Your task to perform on an android device: turn on javascript in the chrome app Image 0: 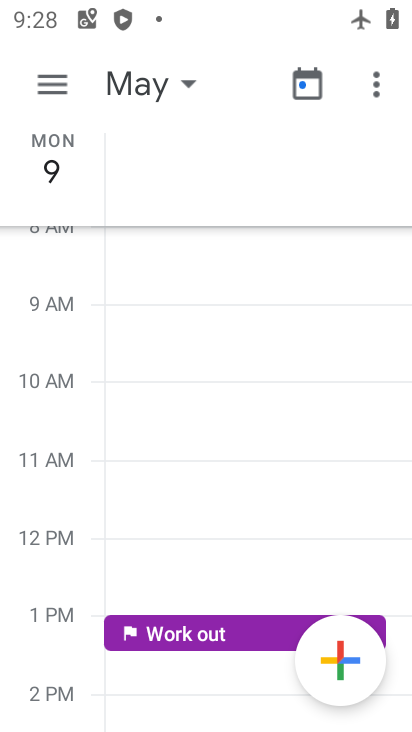
Step 0: press home button
Your task to perform on an android device: turn on javascript in the chrome app Image 1: 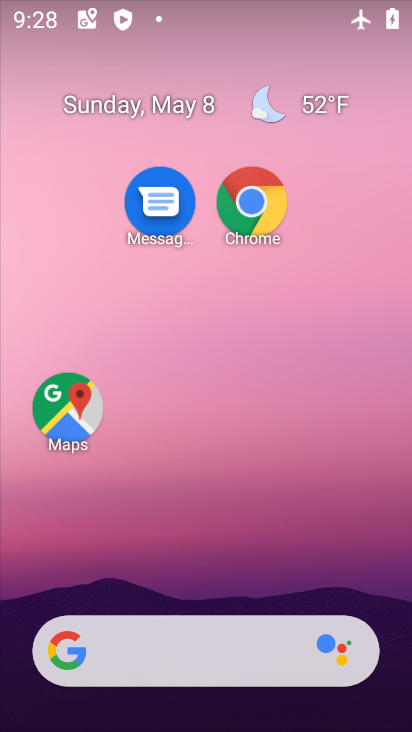
Step 1: click (260, 225)
Your task to perform on an android device: turn on javascript in the chrome app Image 2: 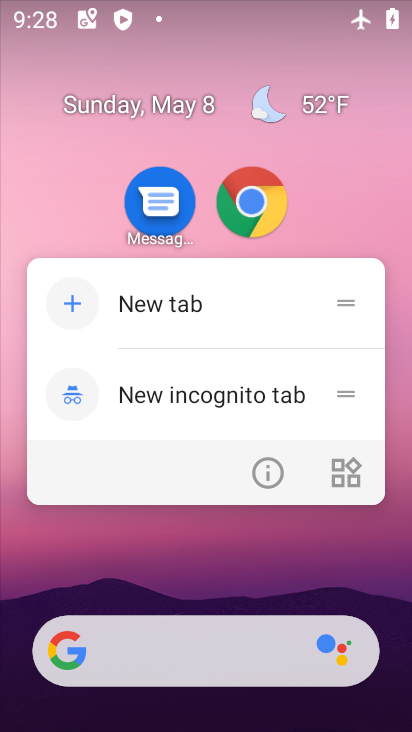
Step 2: click (255, 203)
Your task to perform on an android device: turn on javascript in the chrome app Image 3: 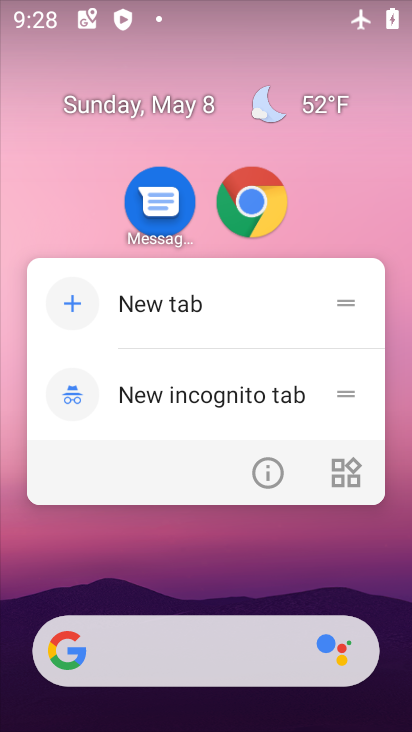
Step 3: click (260, 193)
Your task to perform on an android device: turn on javascript in the chrome app Image 4: 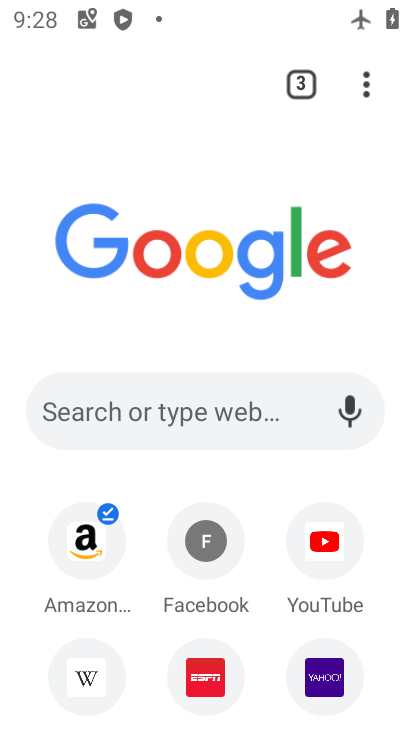
Step 4: click (371, 90)
Your task to perform on an android device: turn on javascript in the chrome app Image 5: 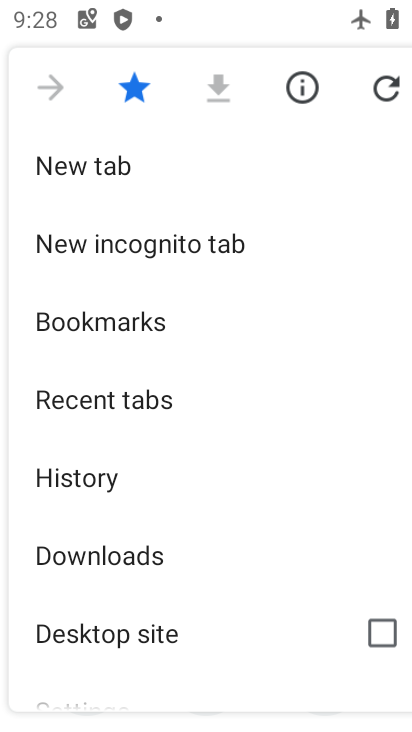
Step 5: drag from (198, 558) to (167, 283)
Your task to perform on an android device: turn on javascript in the chrome app Image 6: 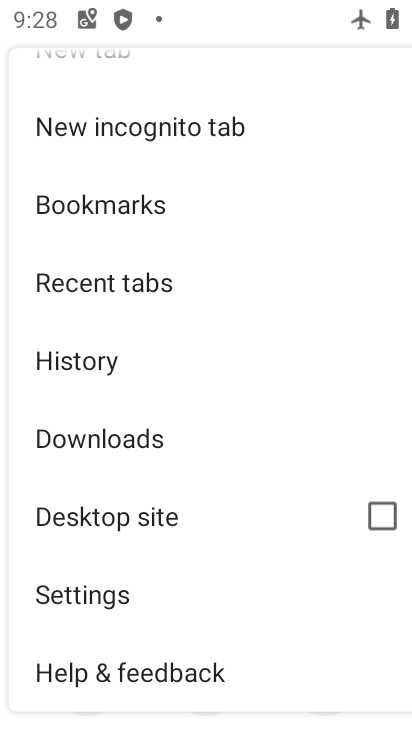
Step 6: click (91, 572)
Your task to perform on an android device: turn on javascript in the chrome app Image 7: 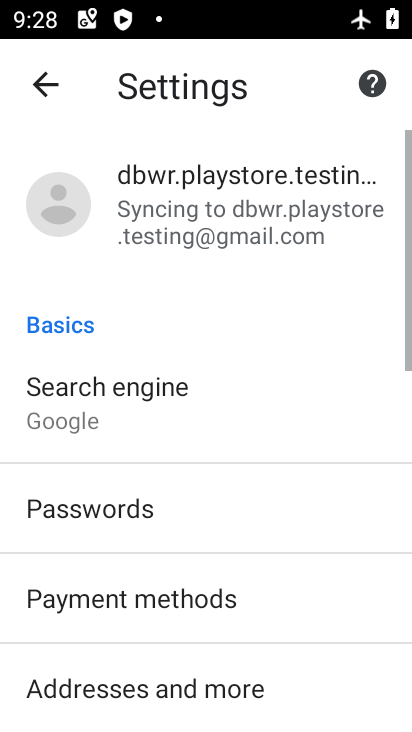
Step 7: drag from (238, 618) to (185, 205)
Your task to perform on an android device: turn on javascript in the chrome app Image 8: 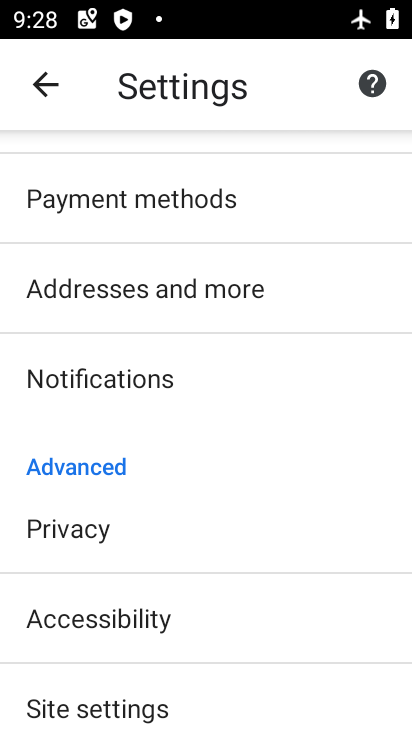
Step 8: click (97, 691)
Your task to perform on an android device: turn on javascript in the chrome app Image 9: 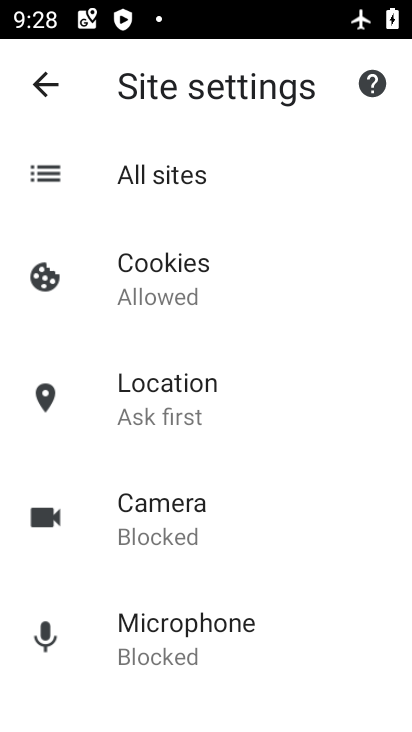
Step 9: drag from (223, 654) to (196, 197)
Your task to perform on an android device: turn on javascript in the chrome app Image 10: 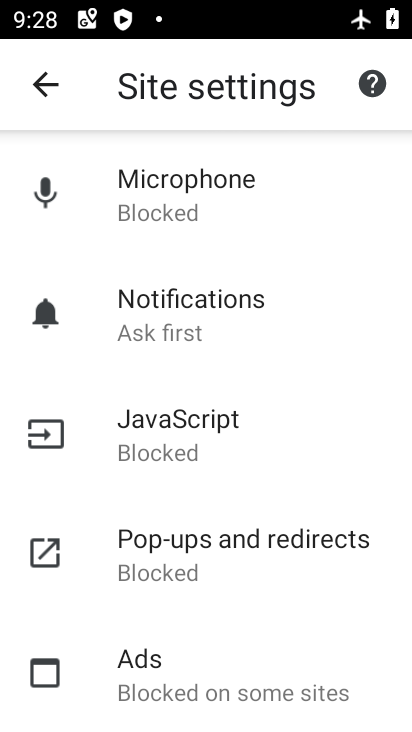
Step 10: click (177, 438)
Your task to perform on an android device: turn on javascript in the chrome app Image 11: 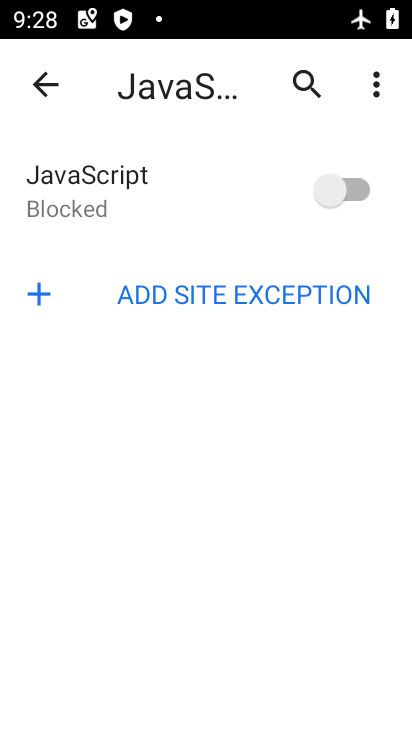
Step 11: click (339, 193)
Your task to perform on an android device: turn on javascript in the chrome app Image 12: 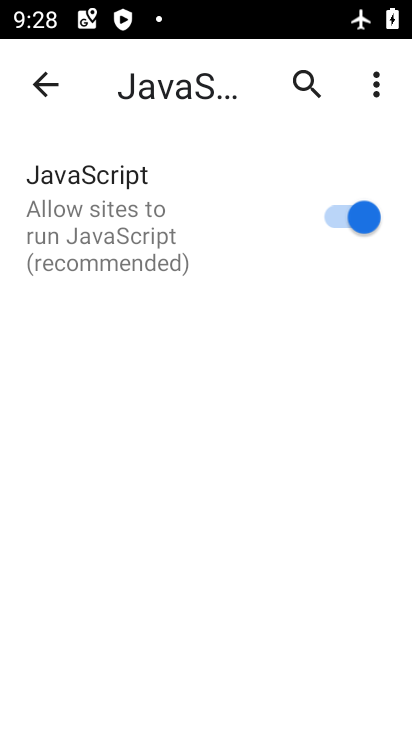
Step 12: task complete